Your task to perform on an android device: Open calendar and show me the first week of next month Image 0: 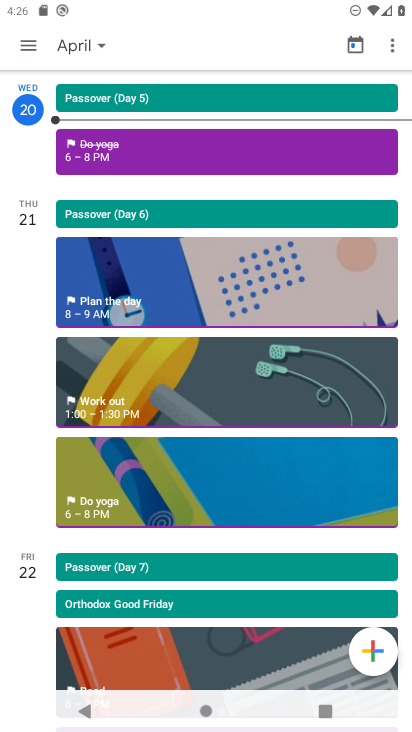
Step 0: click (74, 46)
Your task to perform on an android device: Open calendar and show me the first week of next month Image 1: 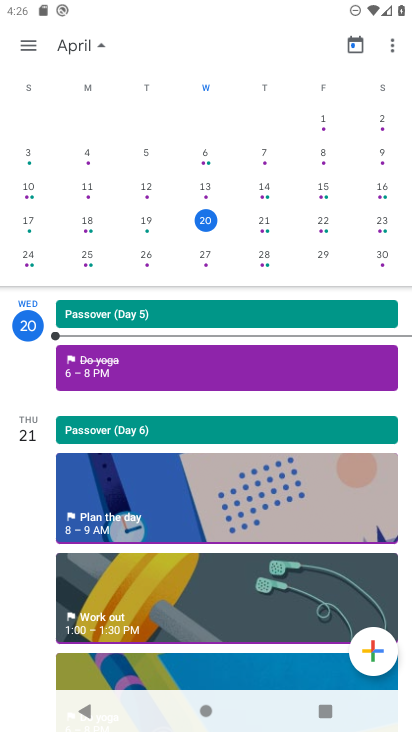
Step 1: drag from (384, 188) to (4, 117)
Your task to perform on an android device: Open calendar and show me the first week of next month Image 2: 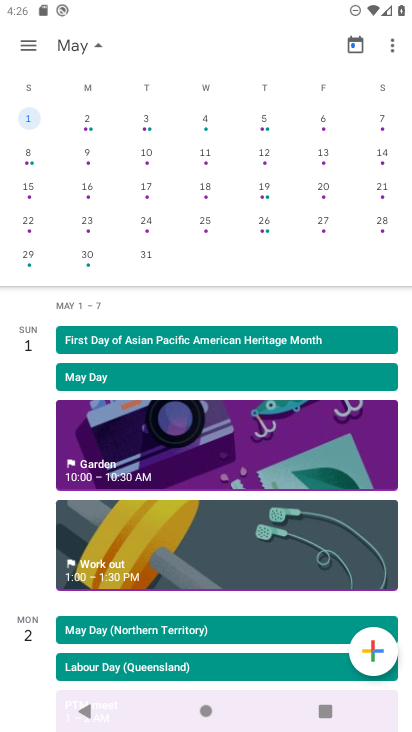
Step 2: click (84, 111)
Your task to perform on an android device: Open calendar and show me the first week of next month Image 3: 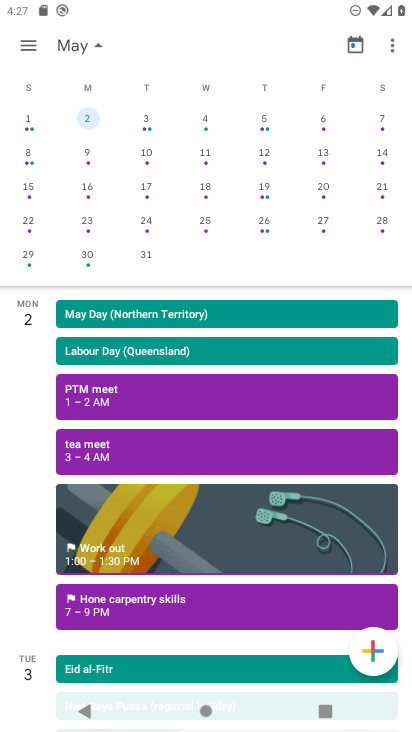
Step 3: task complete